Your task to perform on an android device: see tabs open on other devices in the chrome app Image 0: 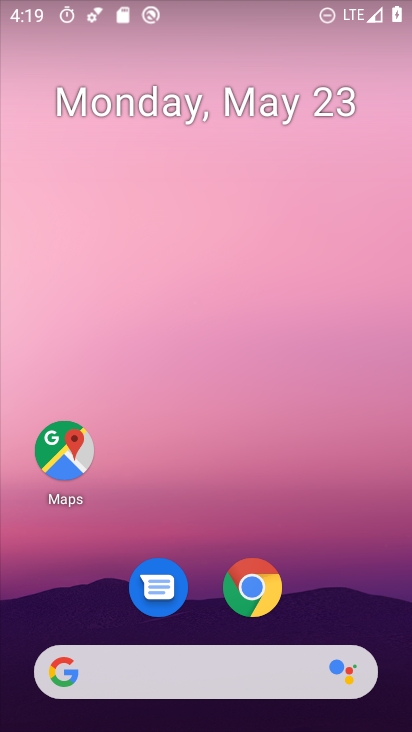
Step 0: click (252, 591)
Your task to perform on an android device: see tabs open on other devices in the chrome app Image 1: 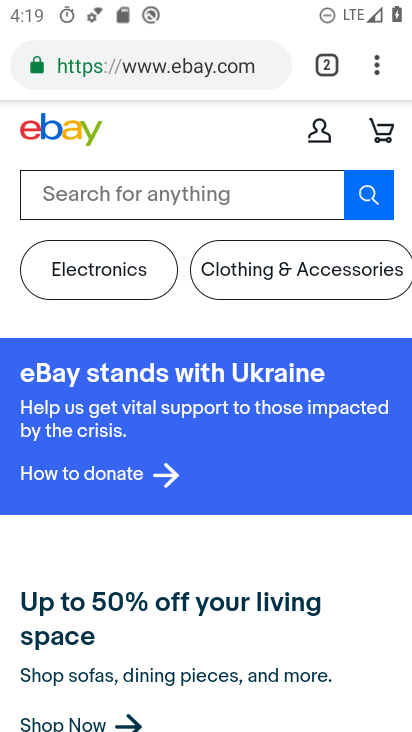
Step 1: click (384, 64)
Your task to perform on an android device: see tabs open on other devices in the chrome app Image 2: 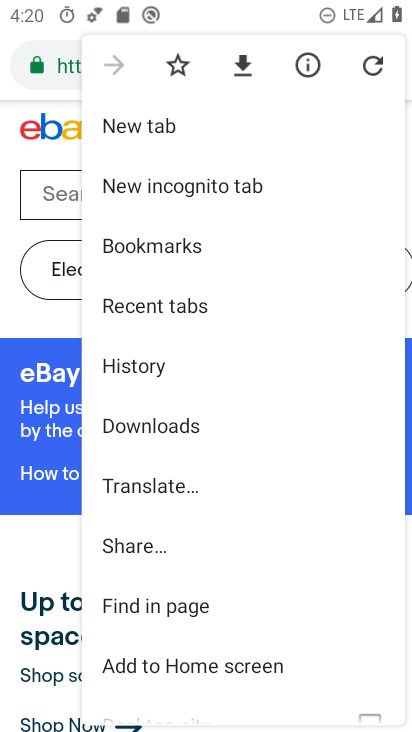
Step 2: click (183, 311)
Your task to perform on an android device: see tabs open on other devices in the chrome app Image 3: 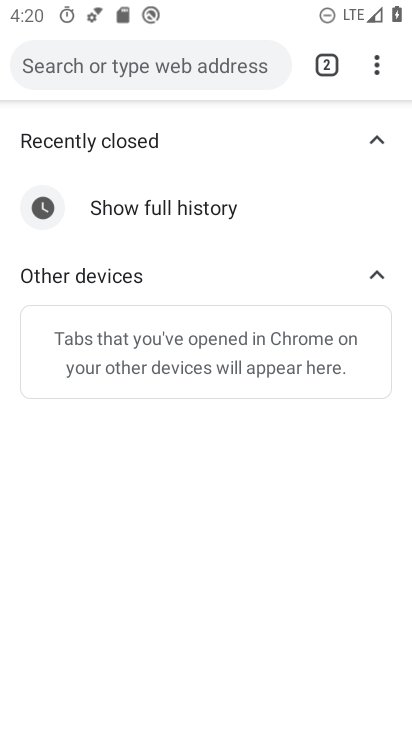
Step 3: task complete